Your task to perform on an android device: Add "jbl charge 4" to the cart on target, then select checkout. Image 0: 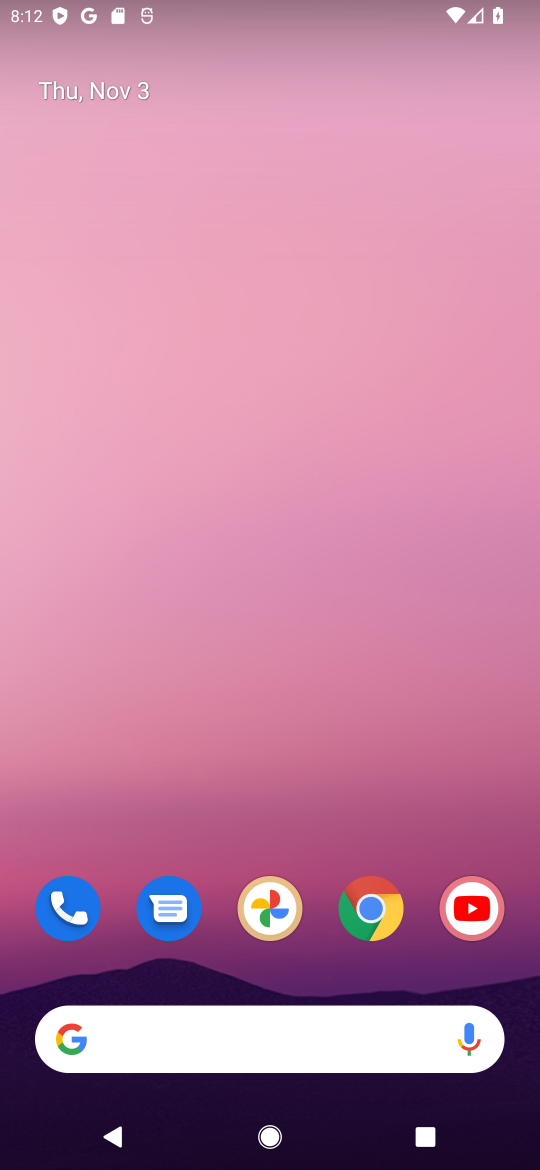
Step 0: click (369, 911)
Your task to perform on an android device: Add "jbl charge 4" to the cart on target, then select checkout. Image 1: 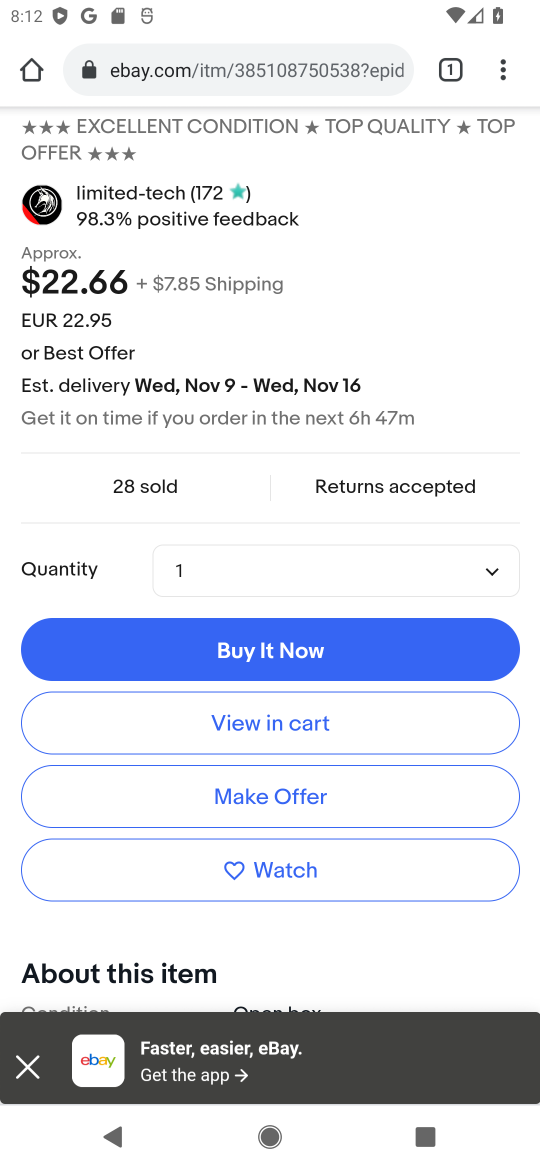
Step 1: click (314, 77)
Your task to perform on an android device: Add "jbl charge 4" to the cart on target, then select checkout. Image 2: 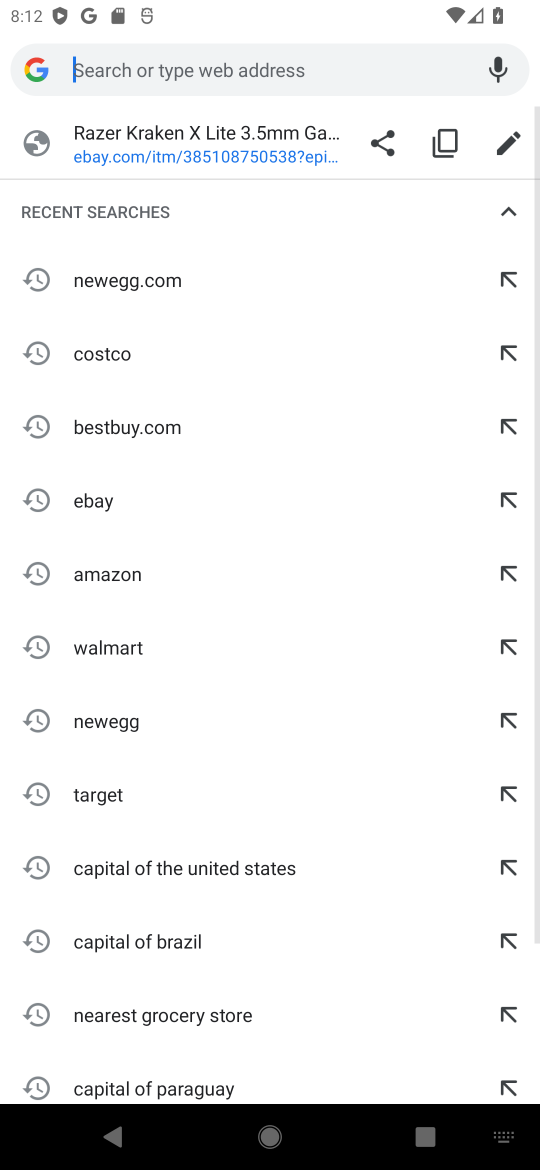
Step 2: type "target"
Your task to perform on an android device: Add "jbl charge 4" to the cart on target, then select checkout. Image 3: 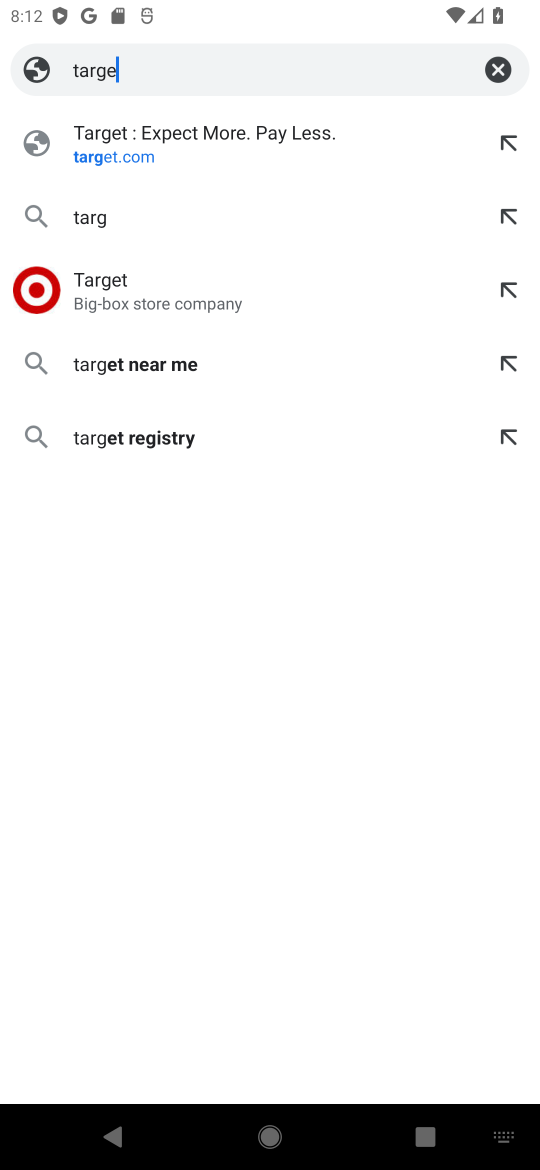
Step 3: press enter
Your task to perform on an android device: Add "jbl charge 4" to the cart on target, then select checkout. Image 4: 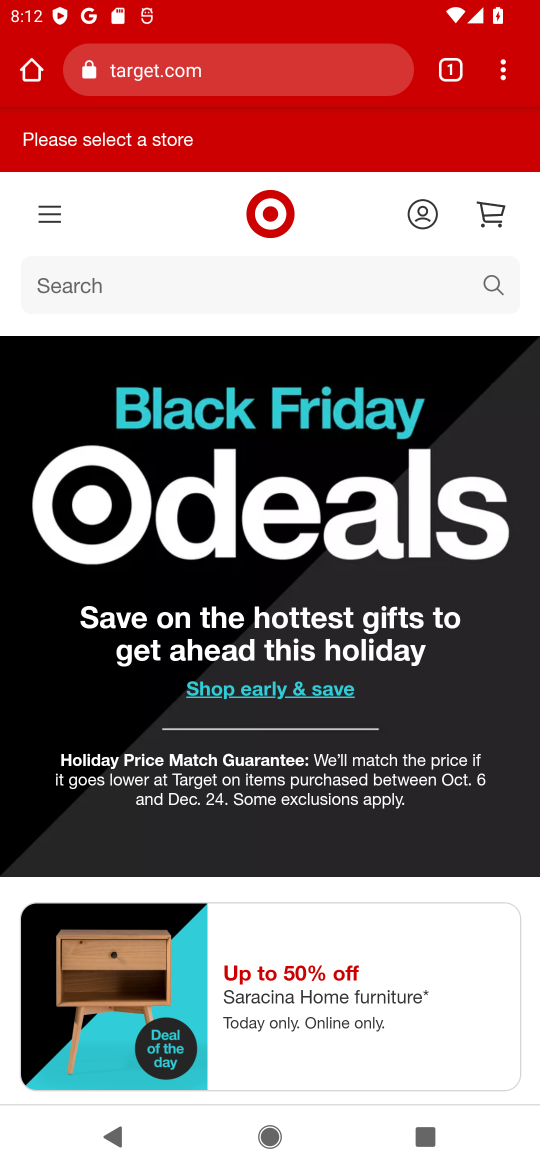
Step 4: click (247, 73)
Your task to perform on an android device: Add "jbl charge 4" to the cart on target, then select checkout. Image 5: 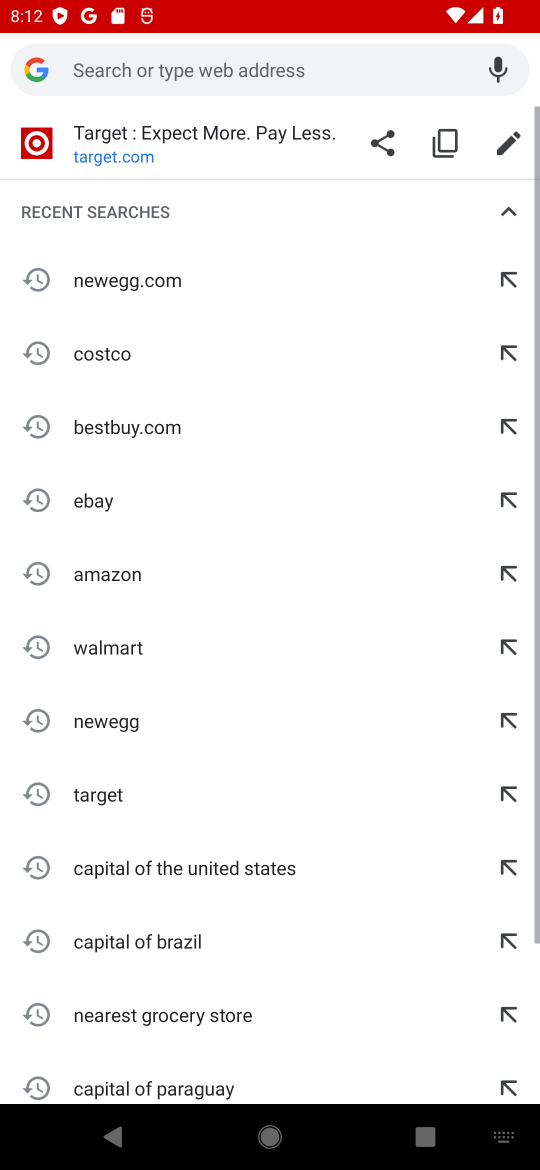
Step 5: click (198, 119)
Your task to perform on an android device: Add "jbl charge 4" to the cart on target, then select checkout. Image 6: 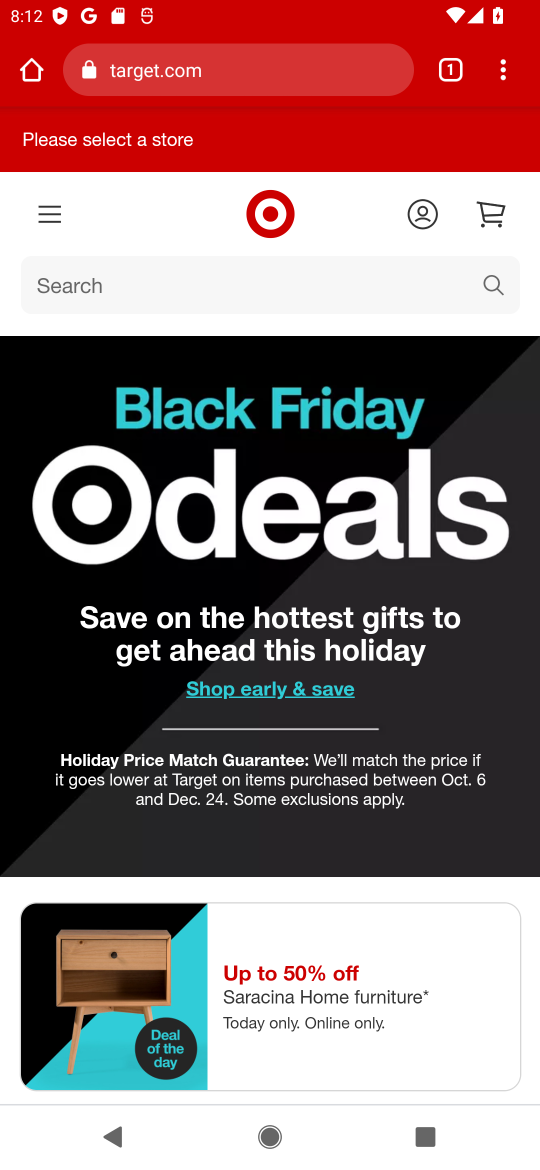
Step 6: click (290, 284)
Your task to perform on an android device: Add "jbl charge 4" to the cart on target, then select checkout. Image 7: 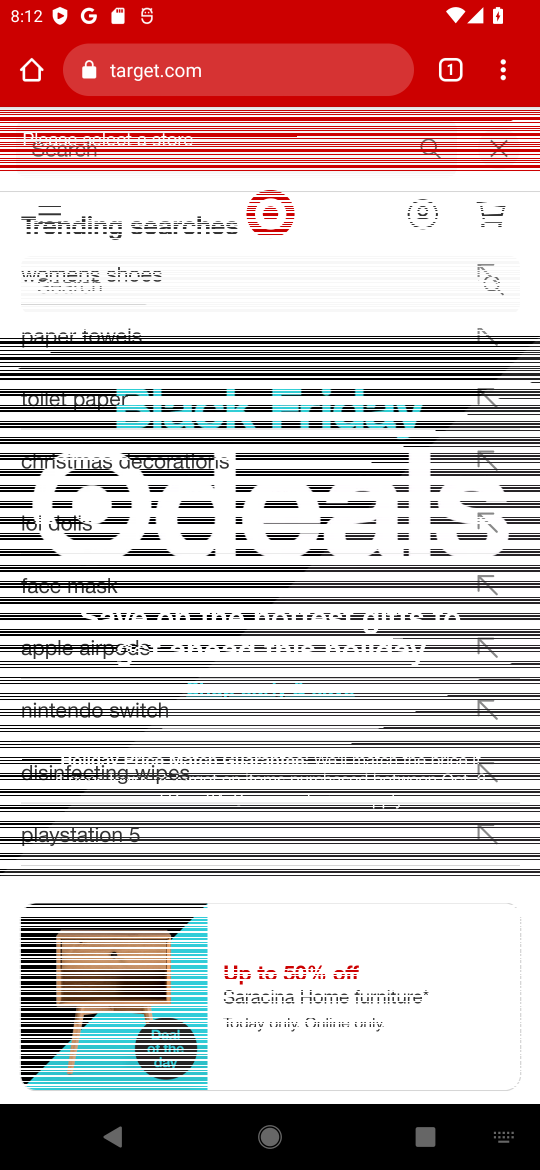
Step 7: type "jbl charge 4"
Your task to perform on an android device: Add "jbl charge 4" to the cart on target, then select checkout. Image 8: 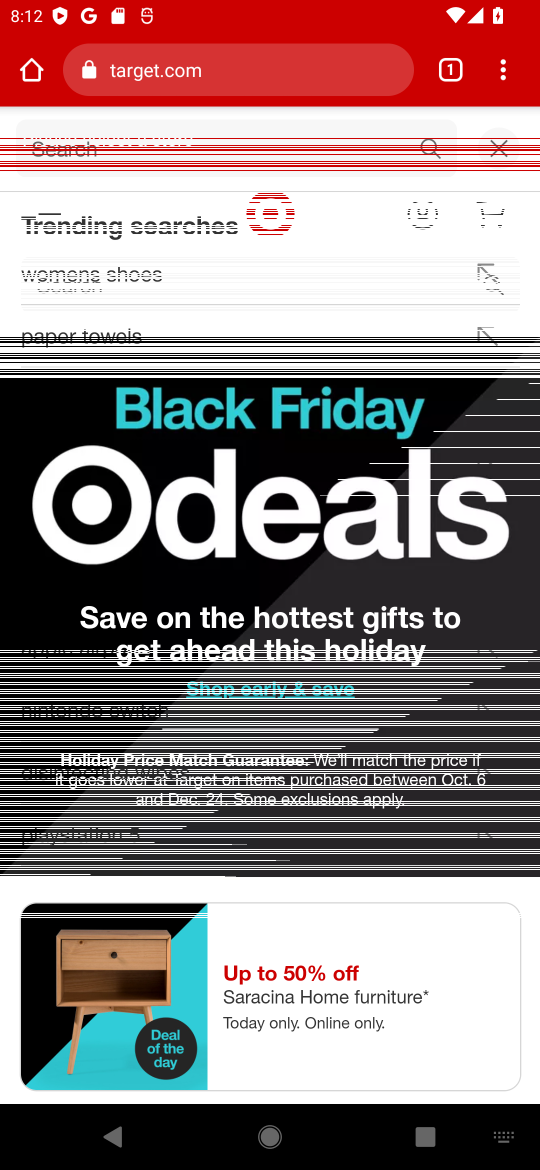
Step 8: press enter
Your task to perform on an android device: Add "jbl charge 4" to the cart on target, then select checkout. Image 9: 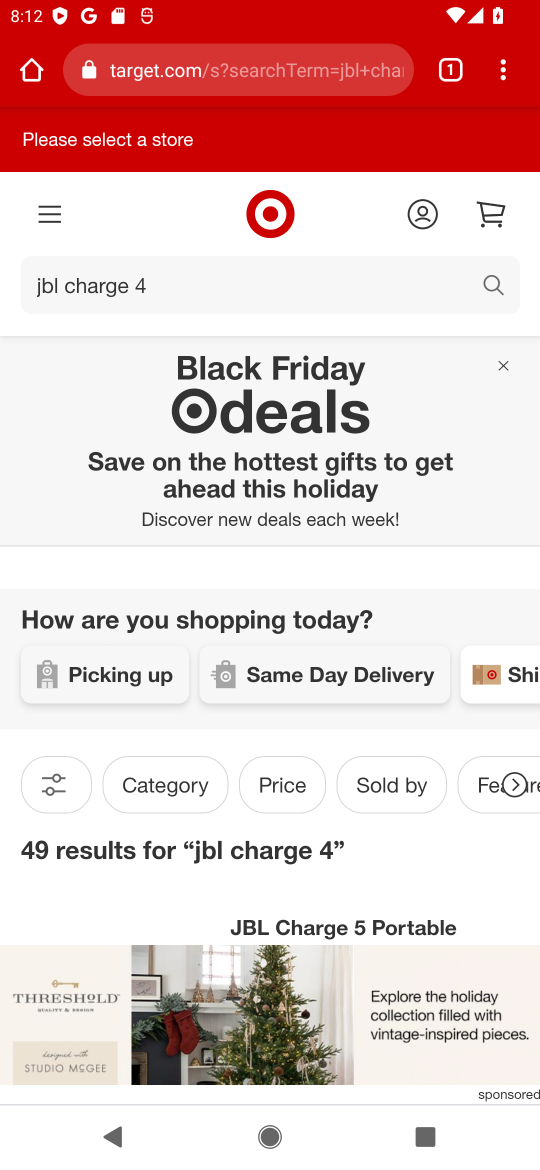
Step 9: drag from (341, 889) to (328, 437)
Your task to perform on an android device: Add "jbl charge 4" to the cart on target, then select checkout. Image 10: 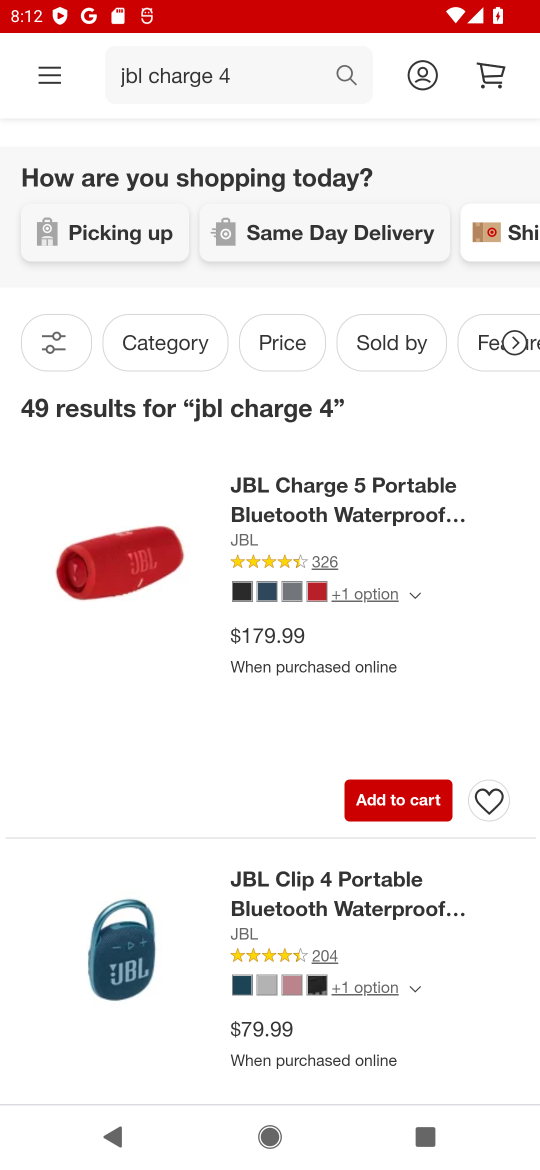
Step 10: drag from (350, 924) to (379, 535)
Your task to perform on an android device: Add "jbl charge 4" to the cart on target, then select checkout. Image 11: 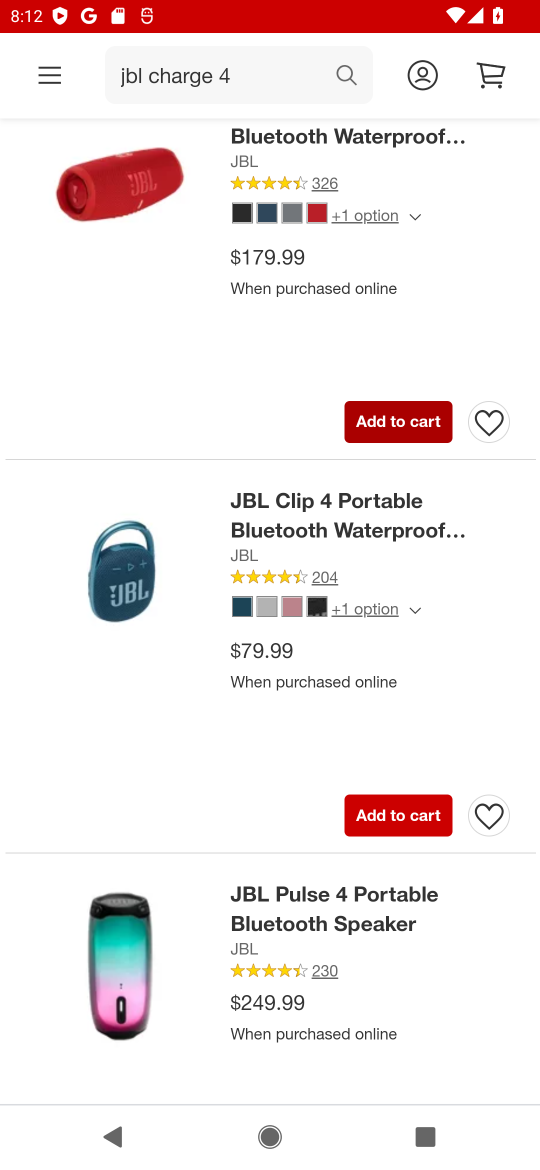
Step 11: drag from (361, 940) to (348, 478)
Your task to perform on an android device: Add "jbl charge 4" to the cart on target, then select checkout. Image 12: 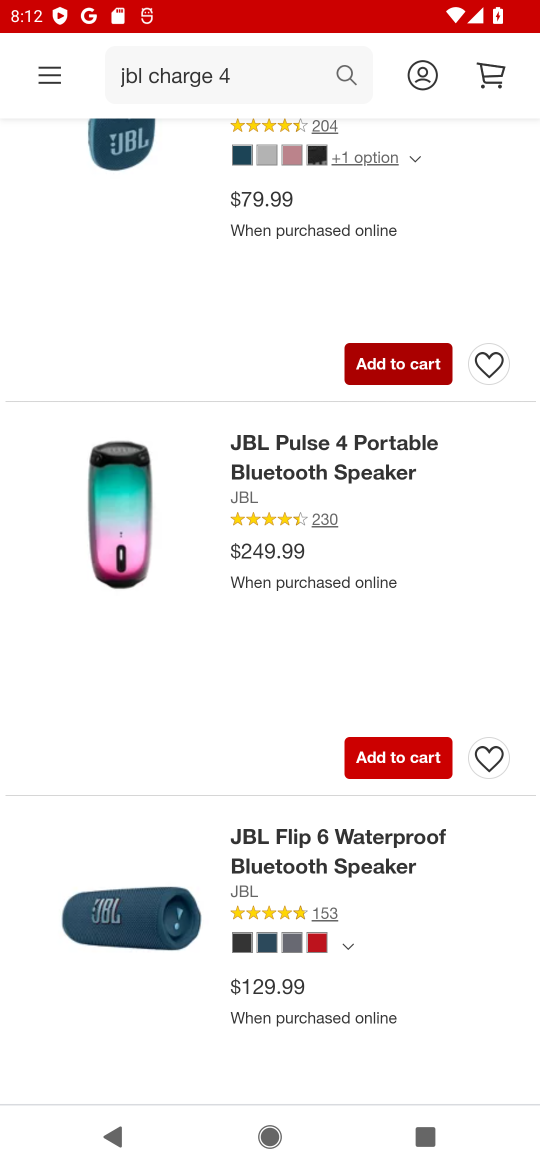
Step 12: drag from (418, 929) to (463, 577)
Your task to perform on an android device: Add "jbl charge 4" to the cart on target, then select checkout. Image 13: 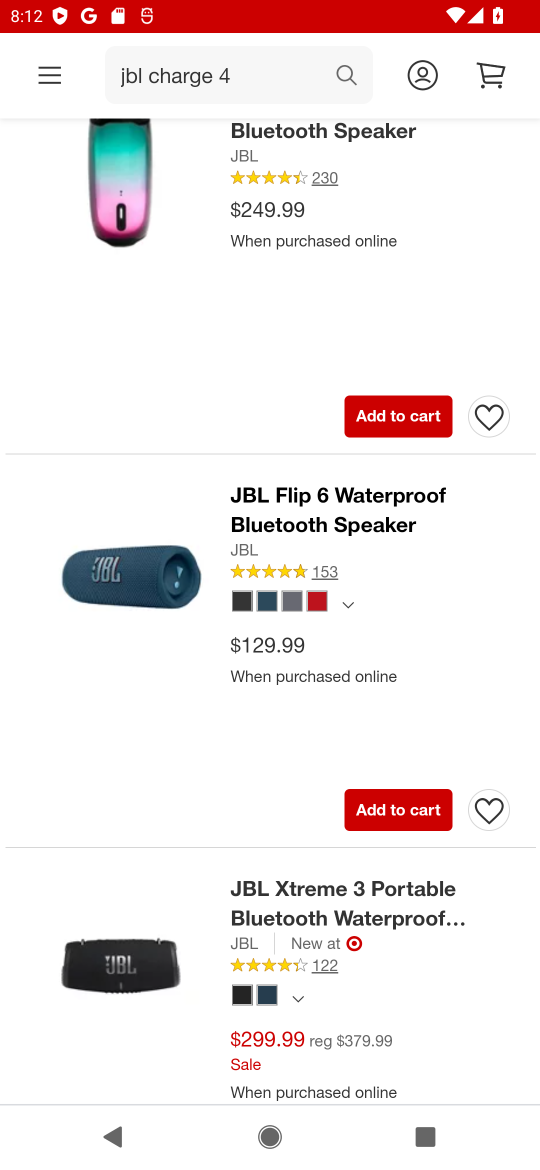
Step 13: drag from (423, 982) to (451, 617)
Your task to perform on an android device: Add "jbl charge 4" to the cart on target, then select checkout. Image 14: 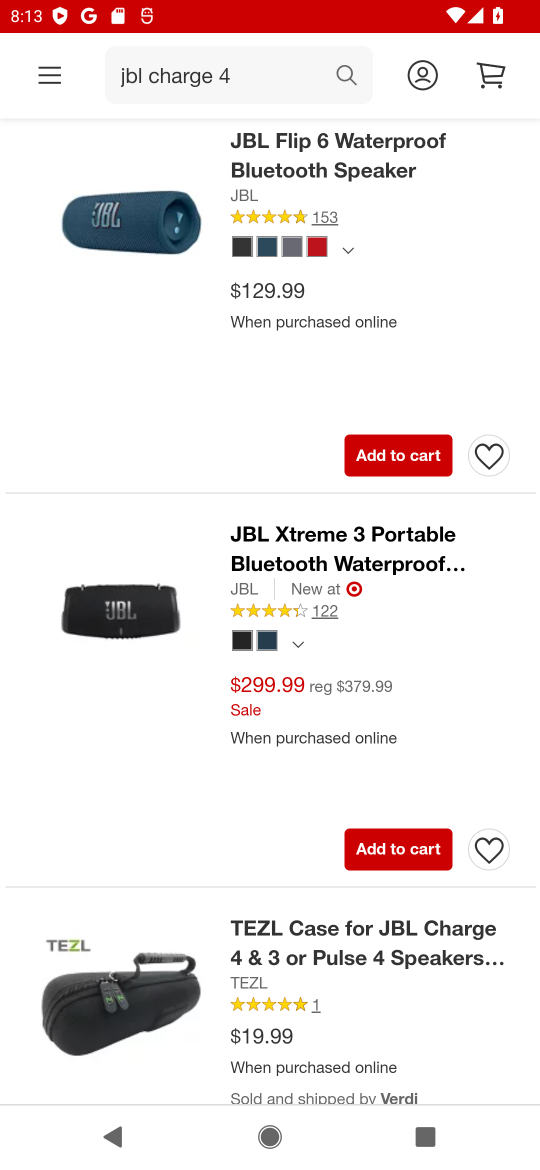
Step 14: drag from (417, 978) to (418, 601)
Your task to perform on an android device: Add "jbl charge 4" to the cart on target, then select checkout. Image 15: 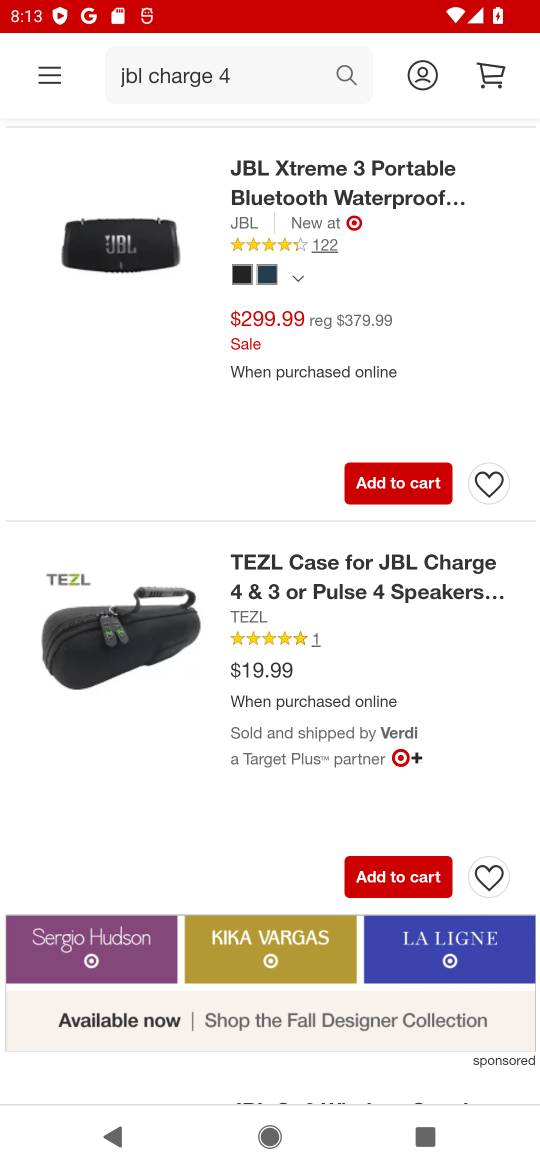
Step 15: drag from (399, 694) to (427, 401)
Your task to perform on an android device: Add "jbl charge 4" to the cart on target, then select checkout. Image 16: 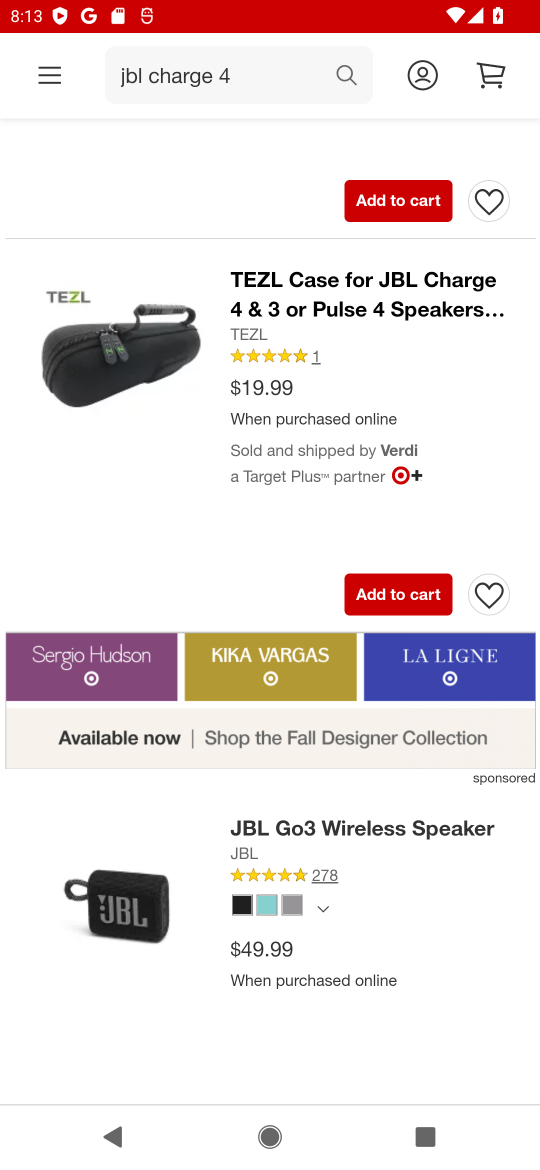
Step 16: drag from (468, 905) to (464, 598)
Your task to perform on an android device: Add "jbl charge 4" to the cart on target, then select checkout. Image 17: 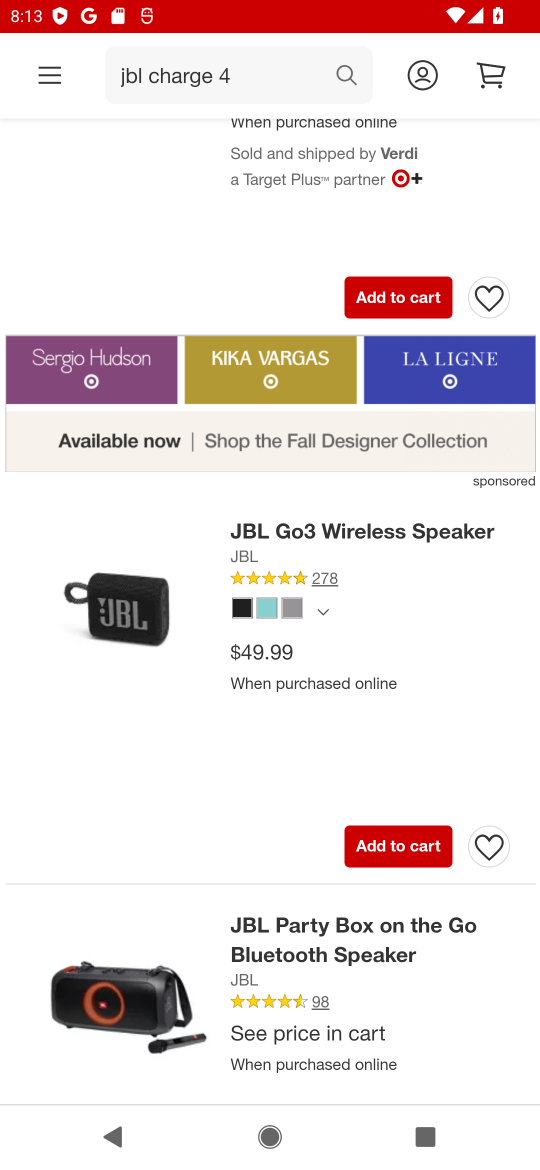
Step 17: drag from (391, 514) to (411, 982)
Your task to perform on an android device: Add "jbl charge 4" to the cart on target, then select checkout. Image 18: 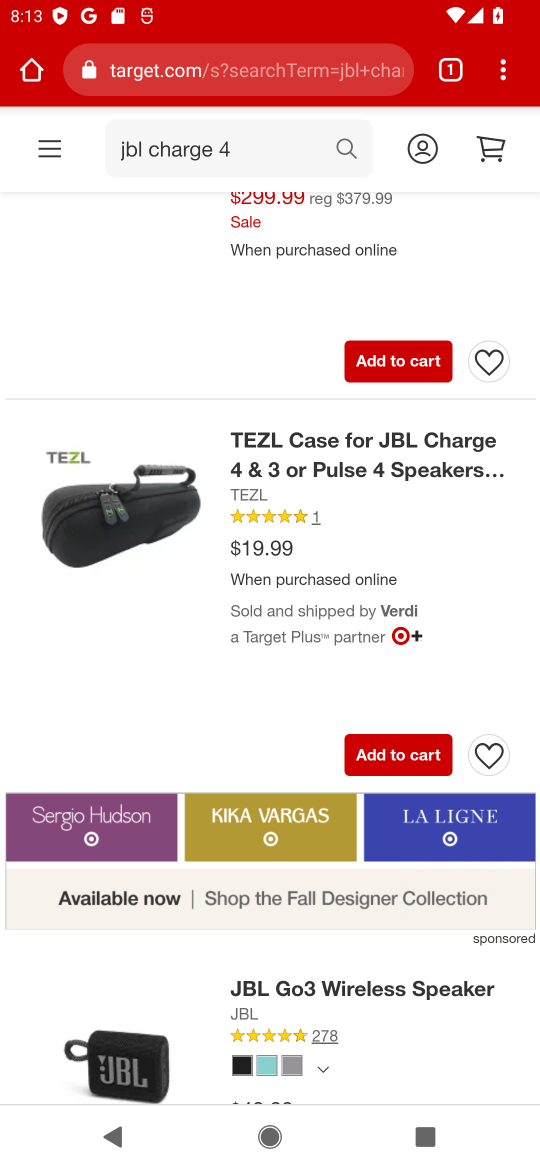
Step 18: drag from (267, 310) to (262, 817)
Your task to perform on an android device: Add "jbl charge 4" to the cart on target, then select checkout. Image 19: 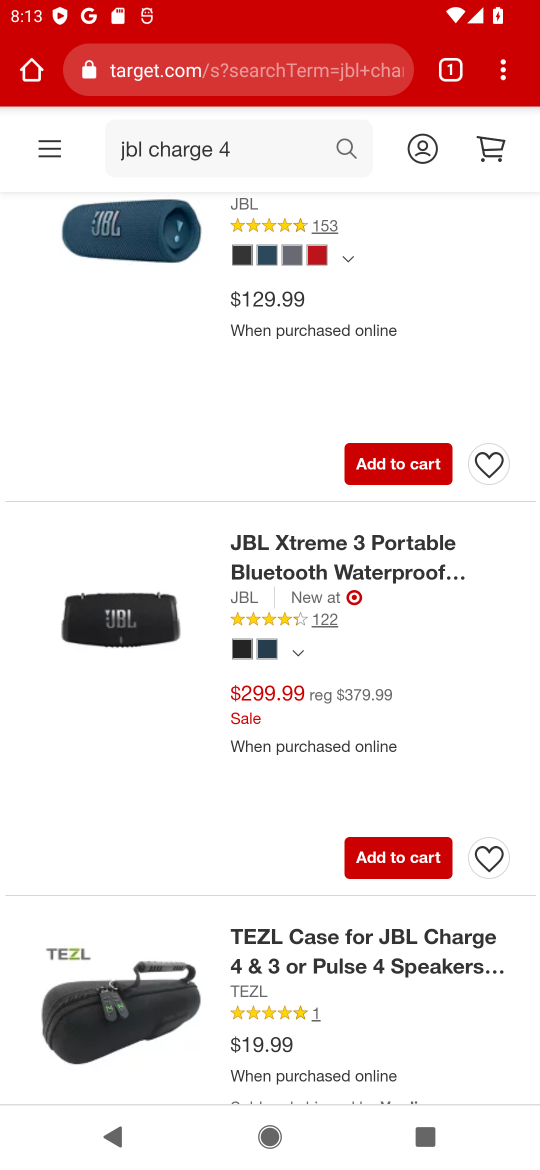
Step 19: drag from (261, 358) to (300, 768)
Your task to perform on an android device: Add "jbl charge 4" to the cart on target, then select checkout. Image 20: 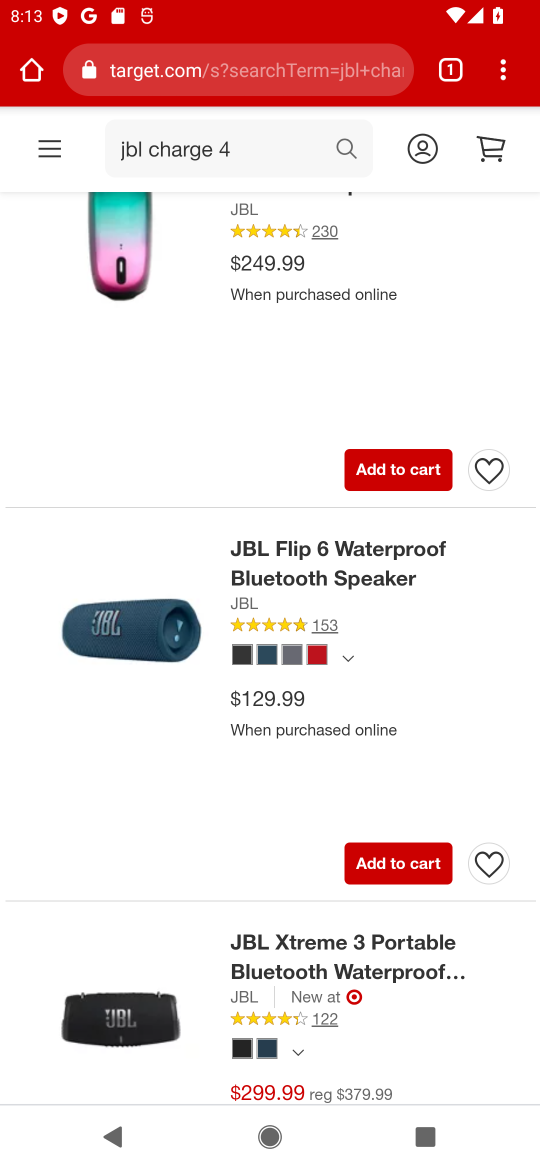
Step 20: drag from (202, 411) to (202, 822)
Your task to perform on an android device: Add "jbl charge 4" to the cart on target, then select checkout. Image 21: 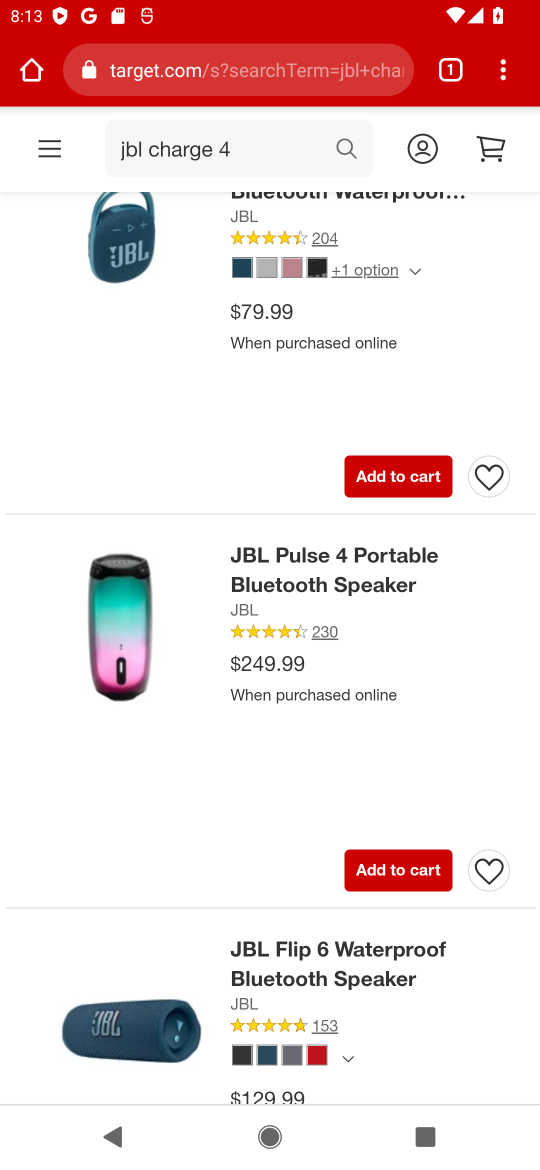
Step 21: drag from (216, 388) to (235, 888)
Your task to perform on an android device: Add "jbl charge 4" to the cart on target, then select checkout. Image 22: 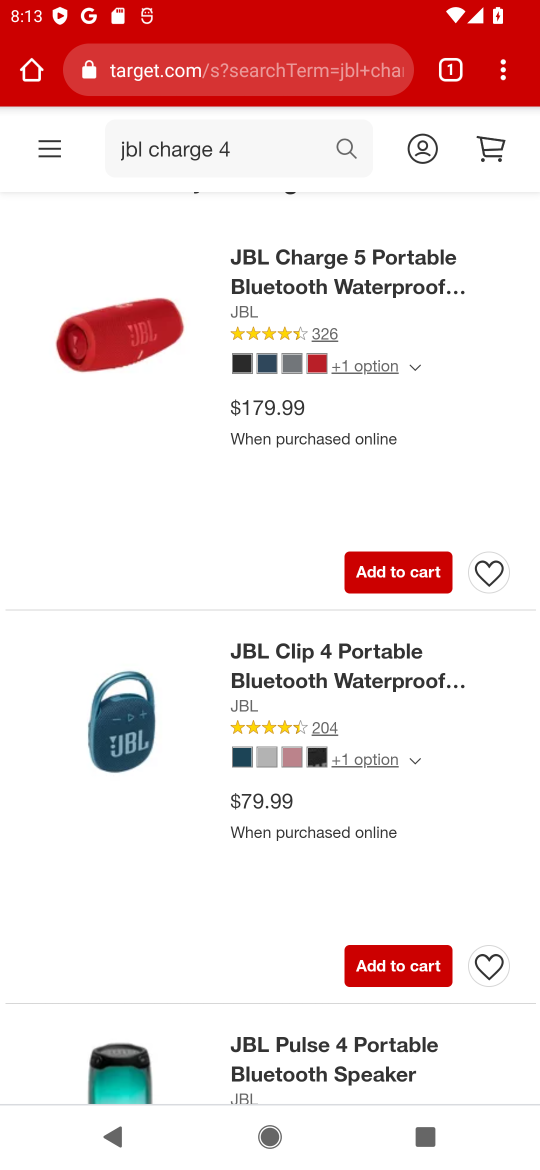
Step 22: drag from (262, 494) to (262, 857)
Your task to perform on an android device: Add "jbl charge 4" to the cart on target, then select checkout. Image 23: 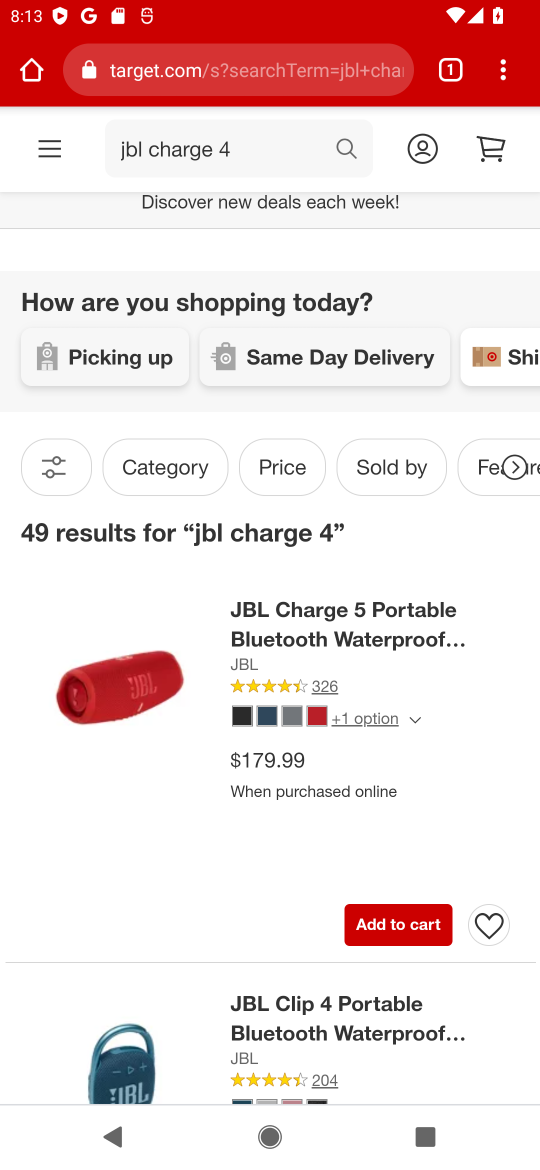
Step 23: click (322, 1013)
Your task to perform on an android device: Add "jbl charge 4" to the cart on target, then select checkout. Image 24: 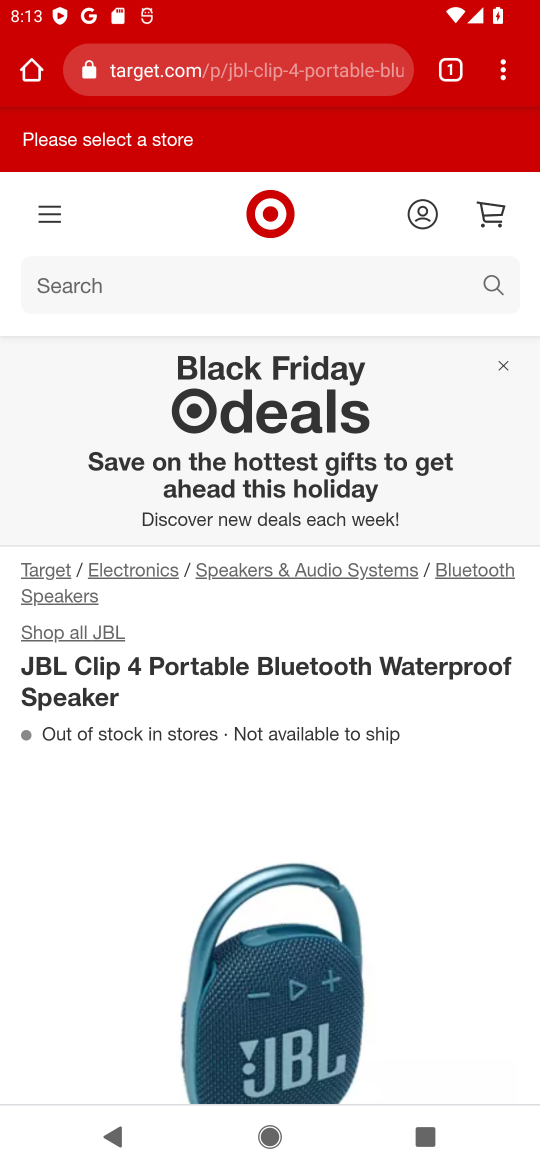
Step 24: drag from (433, 821) to (406, 473)
Your task to perform on an android device: Add "jbl charge 4" to the cart on target, then select checkout. Image 25: 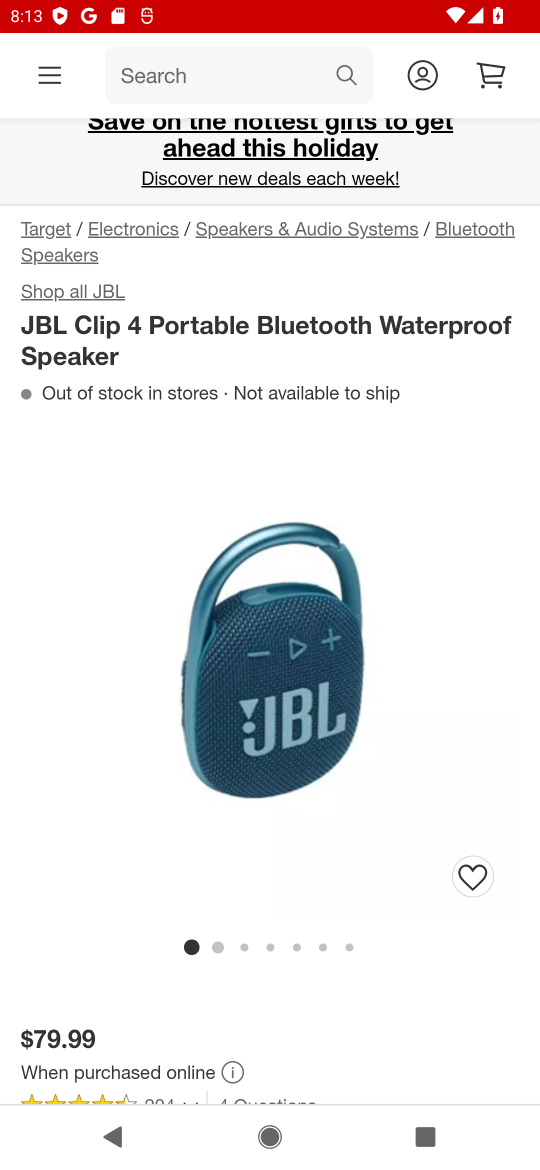
Step 25: drag from (462, 880) to (462, 654)
Your task to perform on an android device: Add "jbl charge 4" to the cart on target, then select checkout. Image 26: 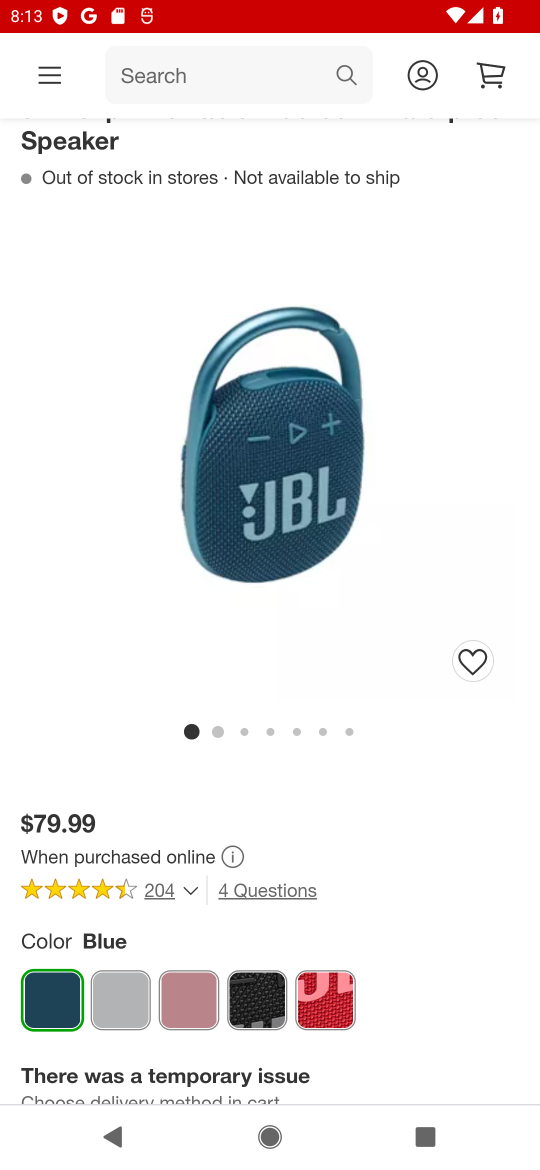
Step 26: drag from (427, 984) to (370, 603)
Your task to perform on an android device: Add "jbl charge 4" to the cart on target, then select checkout. Image 27: 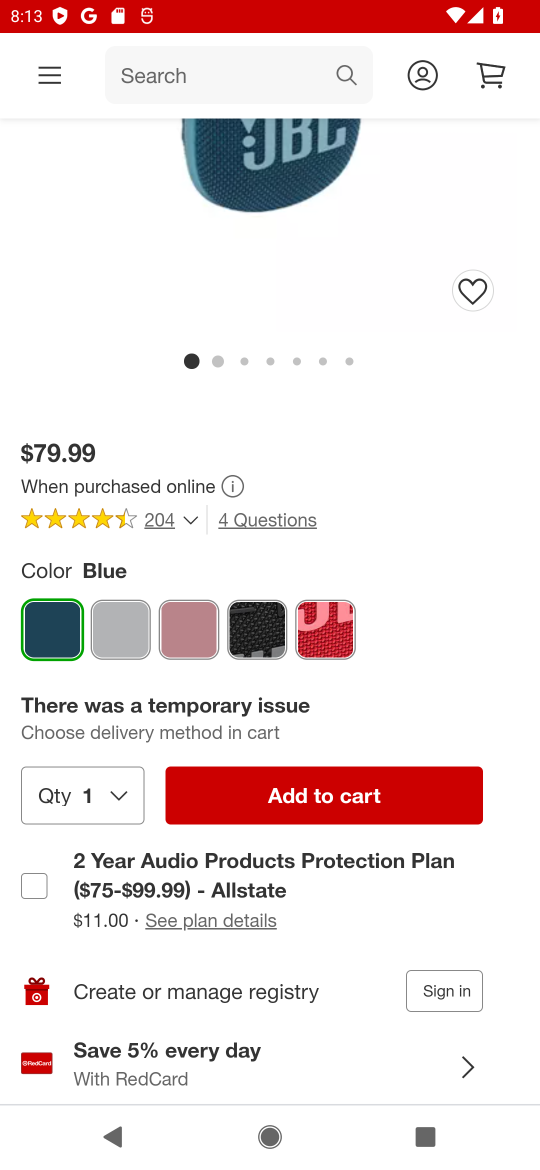
Step 27: click (353, 793)
Your task to perform on an android device: Add "jbl charge 4" to the cart on target, then select checkout. Image 28: 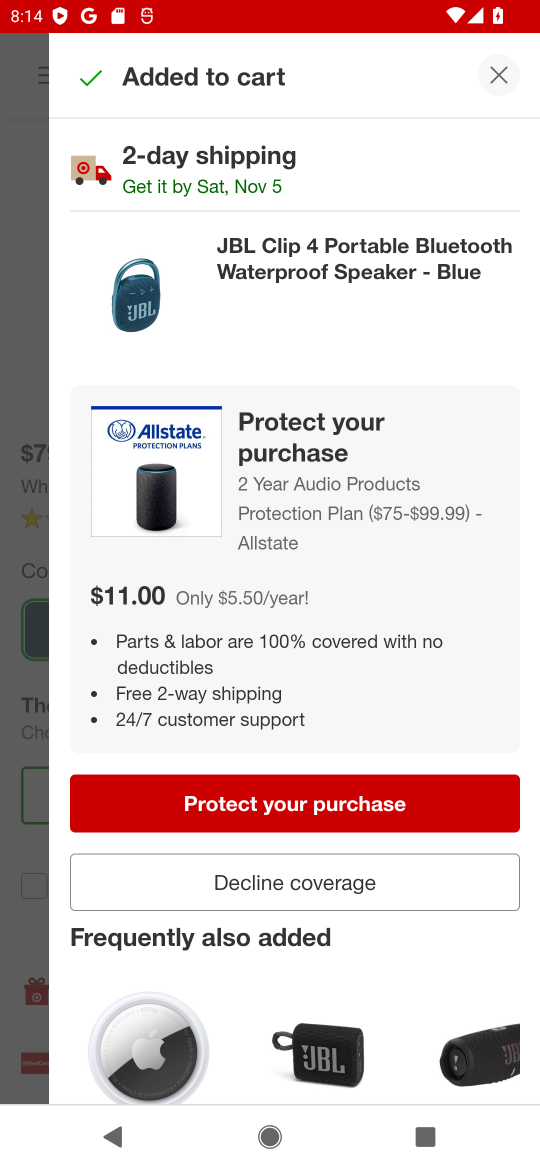
Step 28: click (504, 71)
Your task to perform on an android device: Add "jbl charge 4" to the cart on target, then select checkout. Image 29: 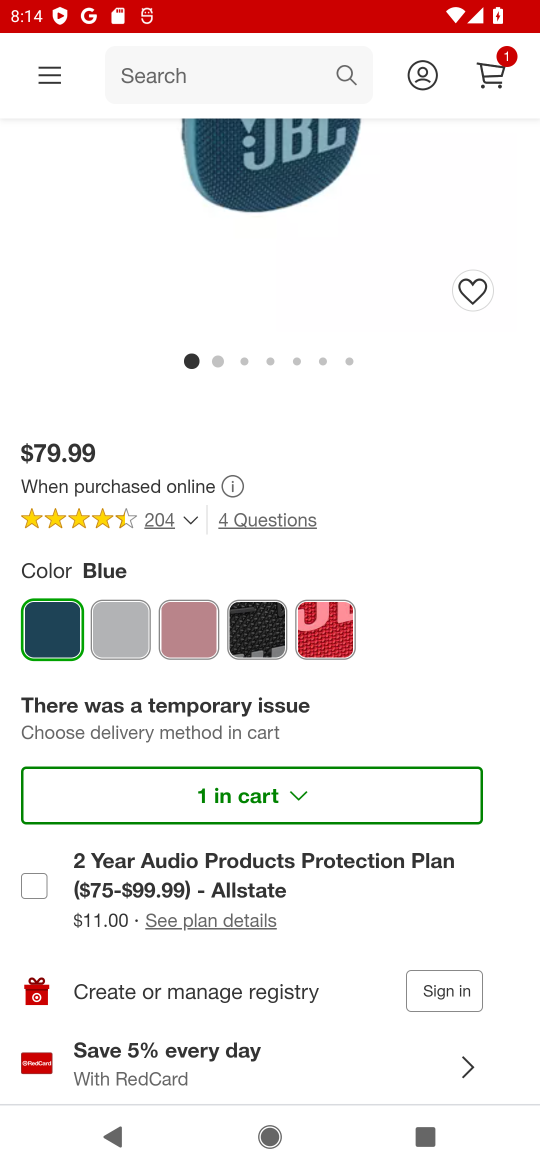
Step 29: click (500, 79)
Your task to perform on an android device: Add "jbl charge 4" to the cart on target, then select checkout. Image 30: 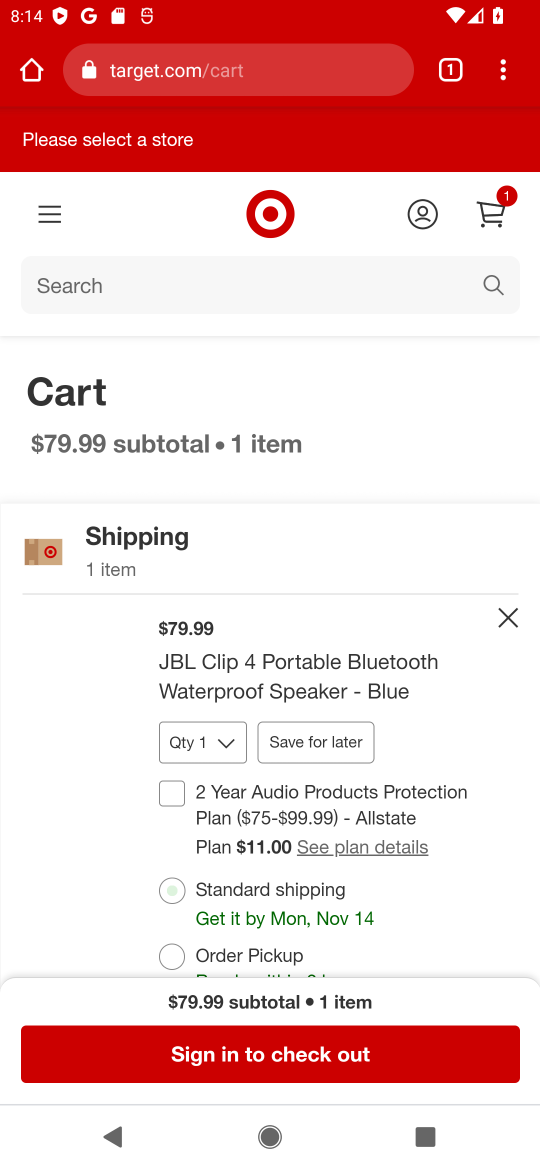
Step 30: click (303, 1051)
Your task to perform on an android device: Add "jbl charge 4" to the cart on target, then select checkout. Image 31: 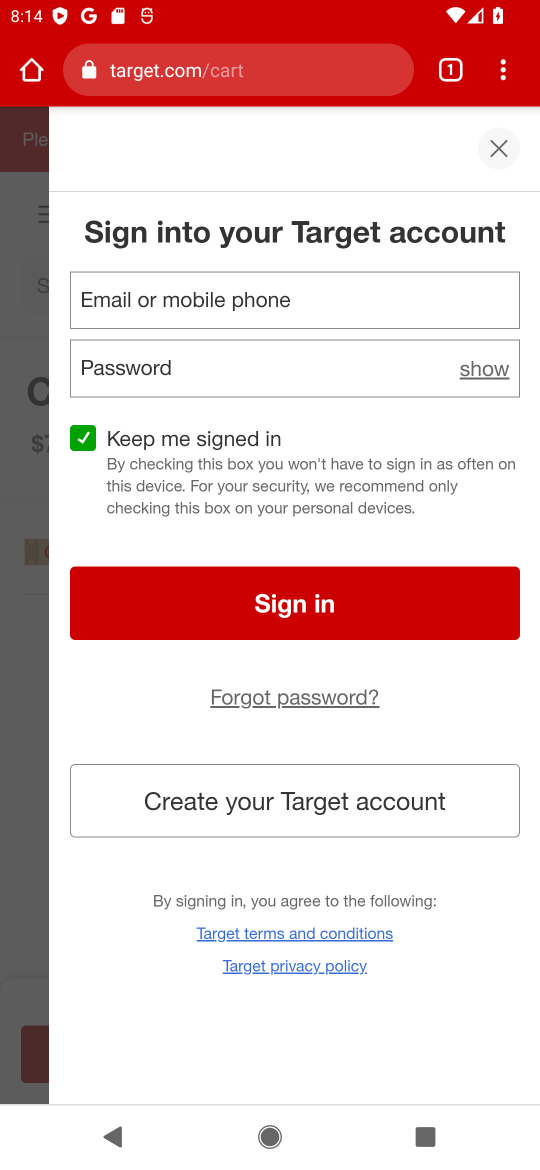
Step 31: task complete